Your task to perform on an android device: search for starred emails in the gmail app Image 0: 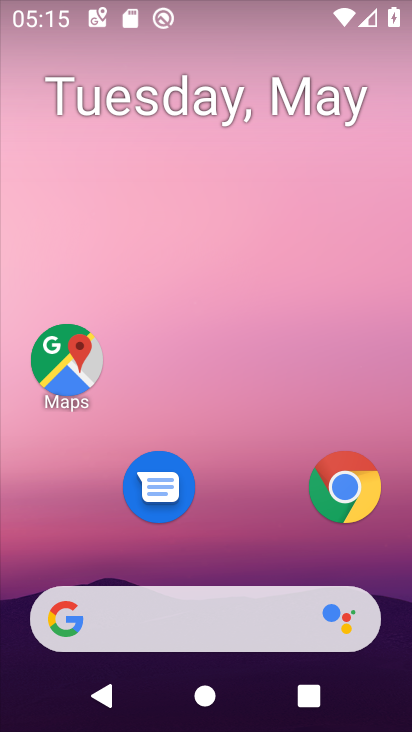
Step 0: drag from (264, 567) to (183, 118)
Your task to perform on an android device: search for starred emails in the gmail app Image 1: 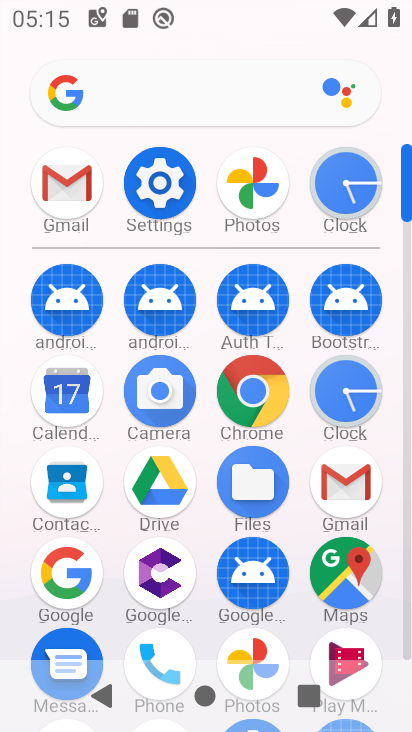
Step 1: click (71, 191)
Your task to perform on an android device: search for starred emails in the gmail app Image 2: 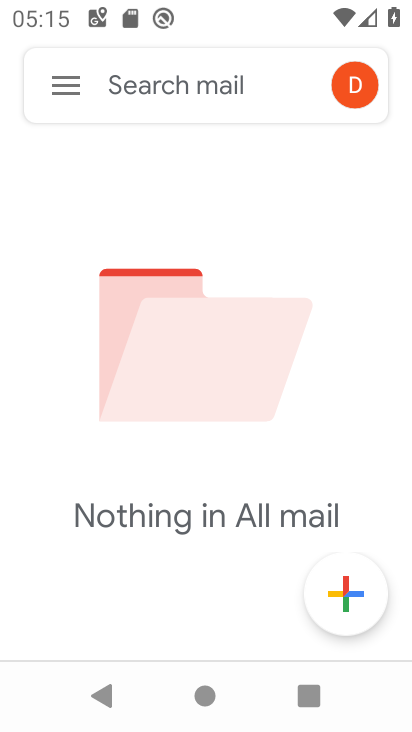
Step 2: click (78, 89)
Your task to perform on an android device: search for starred emails in the gmail app Image 3: 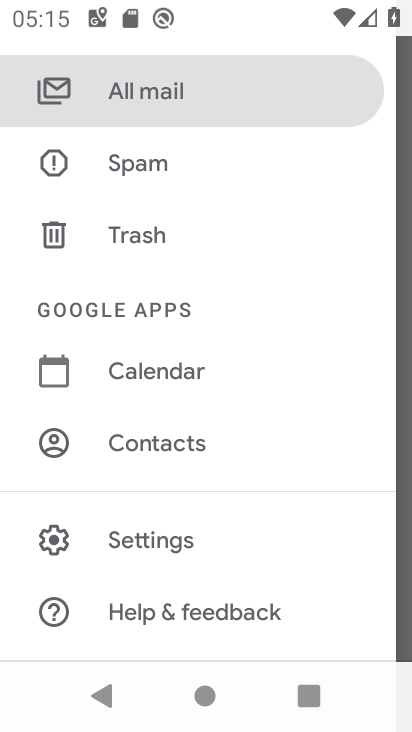
Step 3: click (167, 543)
Your task to perform on an android device: search for starred emails in the gmail app Image 4: 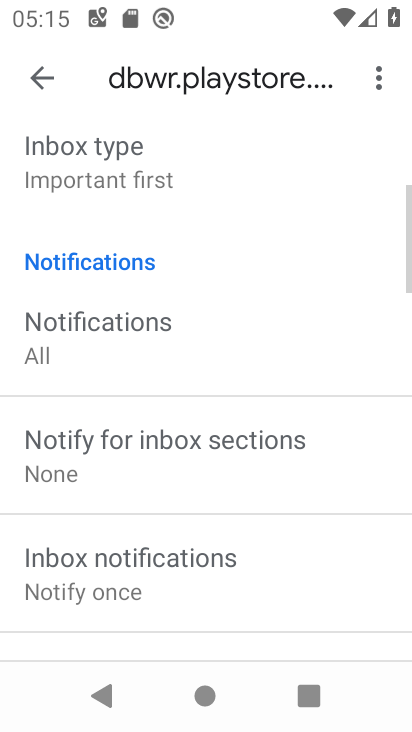
Step 4: click (19, 71)
Your task to perform on an android device: search for starred emails in the gmail app Image 5: 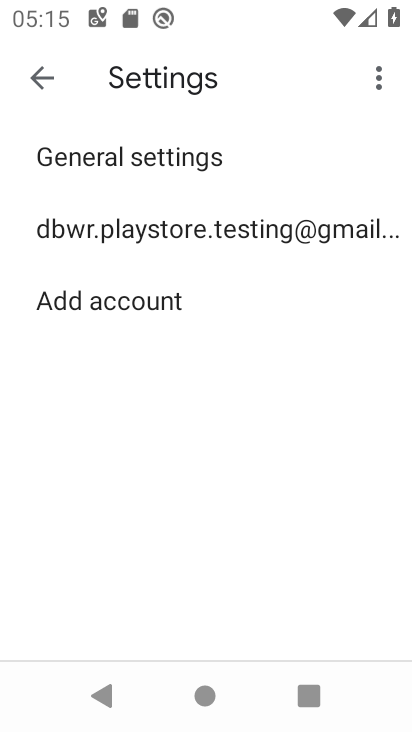
Step 5: click (29, 72)
Your task to perform on an android device: search for starred emails in the gmail app Image 6: 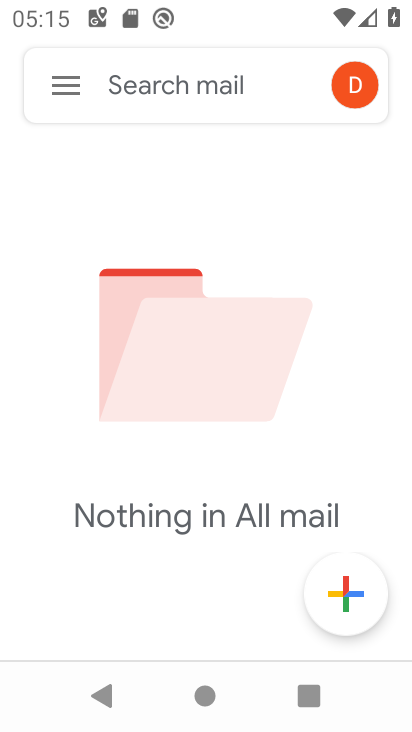
Step 6: click (57, 106)
Your task to perform on an android device: search for starred emails in the gmail app Image 7: 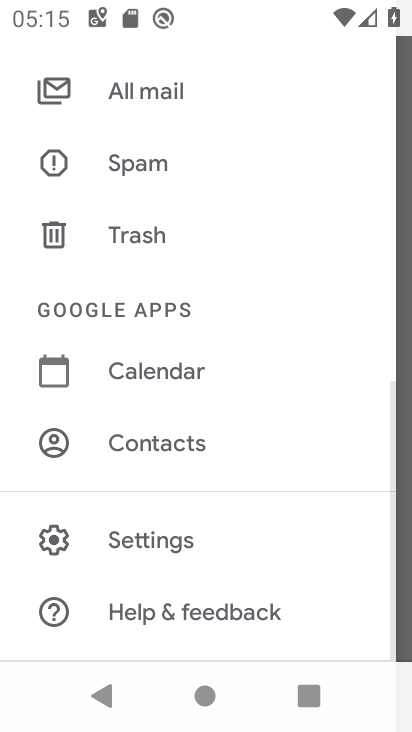
Step 7: drag from (67, 138) to (45, 531)
Your task to perform on an android device: search for starred emails in the gmail app Image 8: 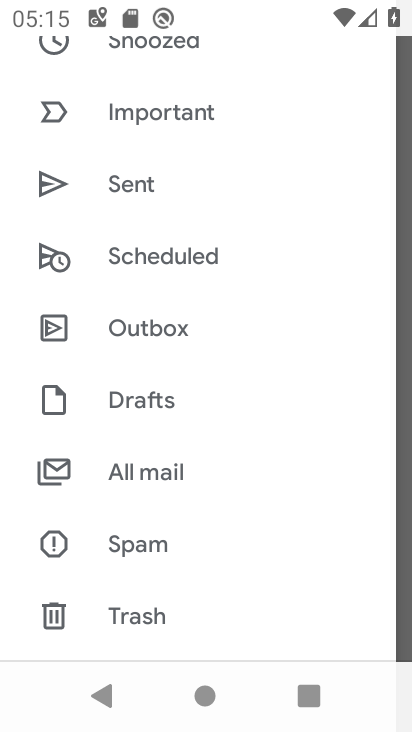
Step 8: drag from (100, 88) to (140, 397)
Your task to perform on an android device: search for starred emails in the gmail app Image 9: 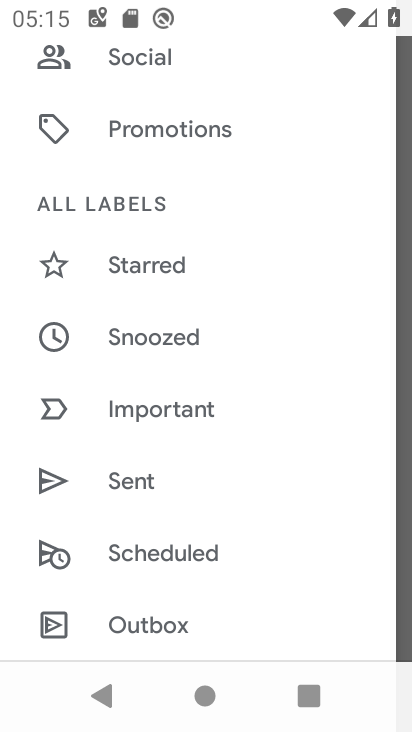
Step 9: click (127, 260)
Your task to perform on an android device: search for starred emails in the gmail app Image 10: 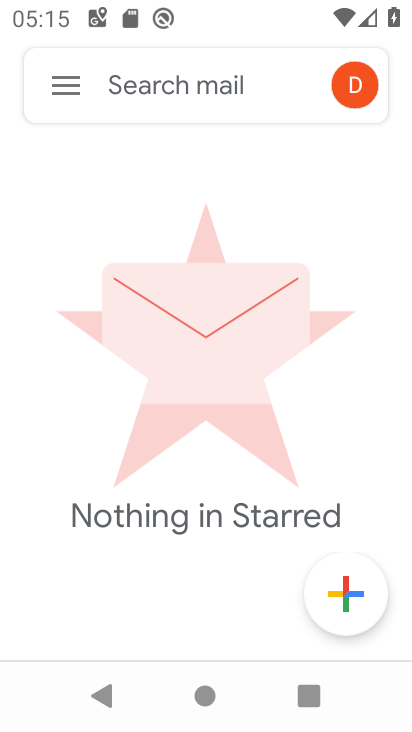
Step 10: task complete